Your task to perform on an android device: Go to Yahoo.com Image 0: 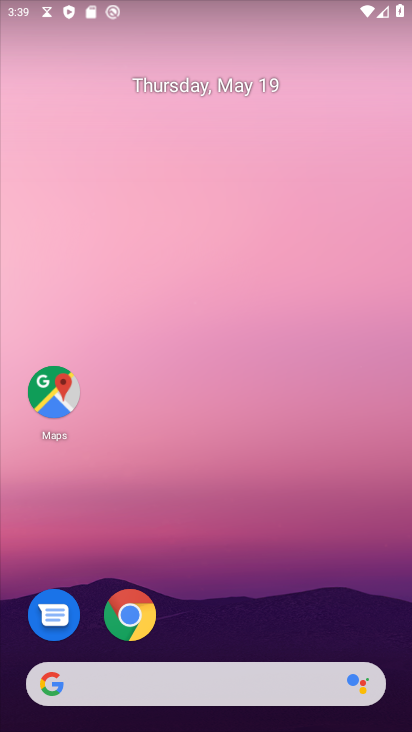
Step 0: drag from (223, 654) to (218, 212)
Your task to perform on an android device: Go to Yahoo.com Image 1: 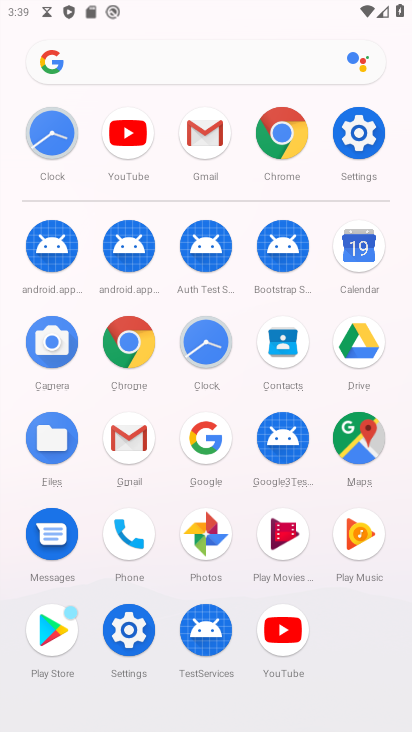
Step 1: click (292, 122)
Your task to perform on an android device: Go to Yahoo.com Image 2: 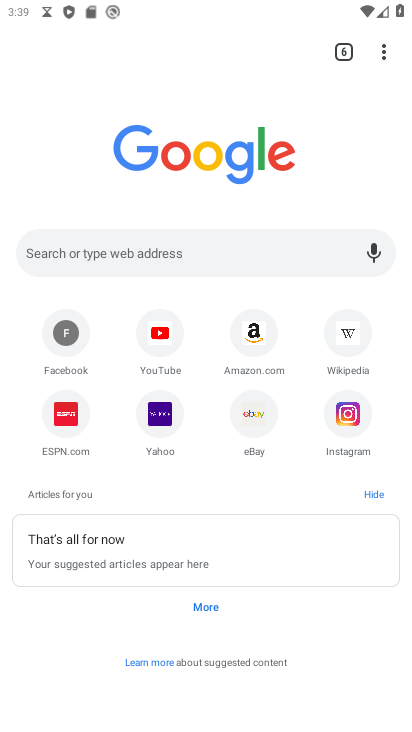
Step 2: click (164, 425)
Your task to perform on an android device: Go to Yahoo.com Image 3: 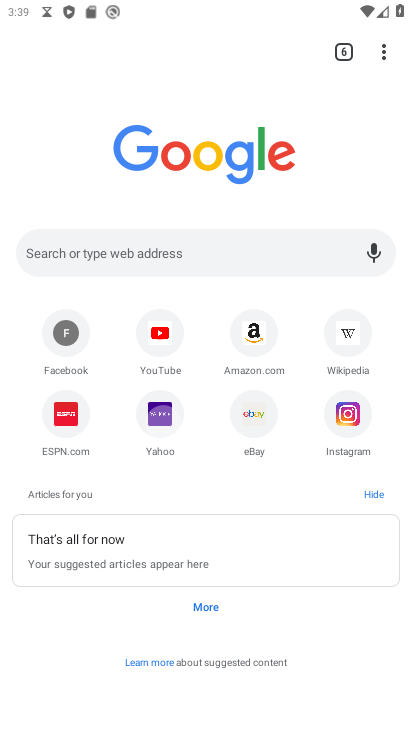
Step 3: click (164, 425)
Your task to perform on an android device: Go to Yahoo.com Image 4: 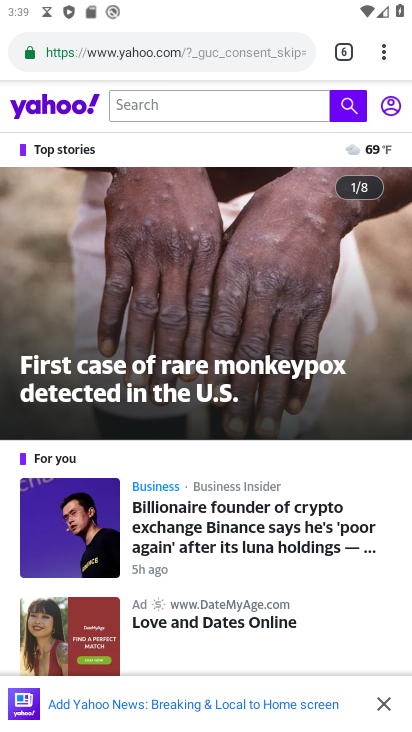
Step 4: task complete